Your task to perform on an android device: toggle pop-ups in chrome Image 0: 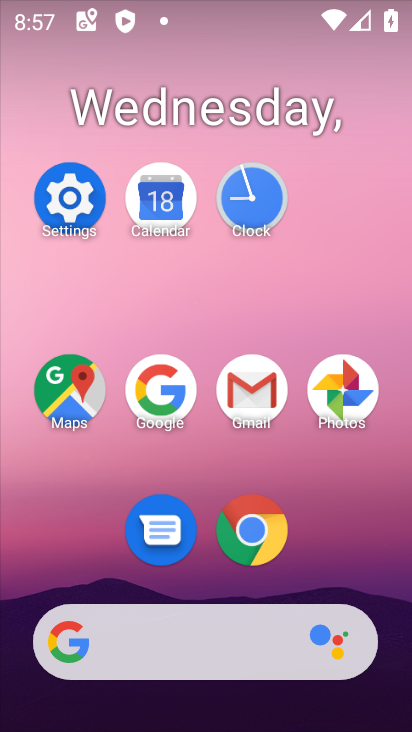
Step 0: click (284, 537)
Your task to perform on an android device: toggle pop-ups in chrome Image 1: 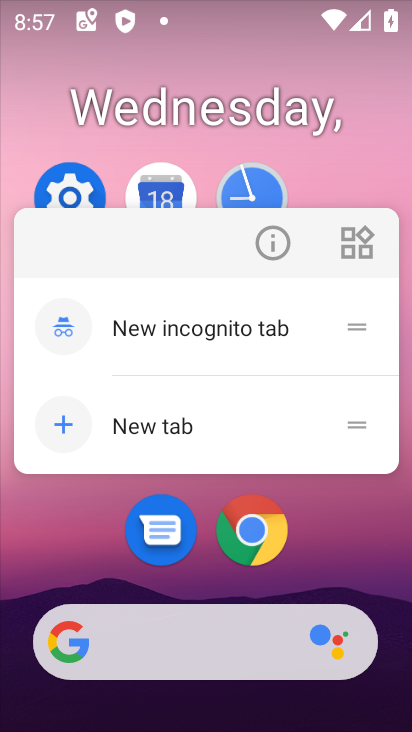
Step 1: click (251, 512)
Your task to perform on an android device: toggle pop-ups in chrome Image 2: 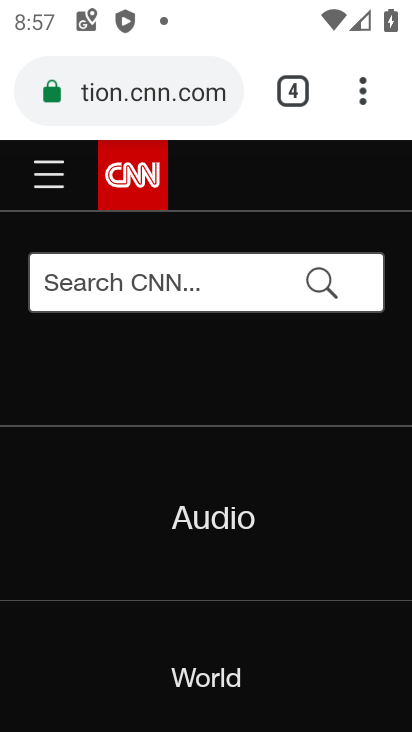
Step 2: click (369, 108)
Your task to perform on an android device: toggle pop-ups in chrome Image 3: 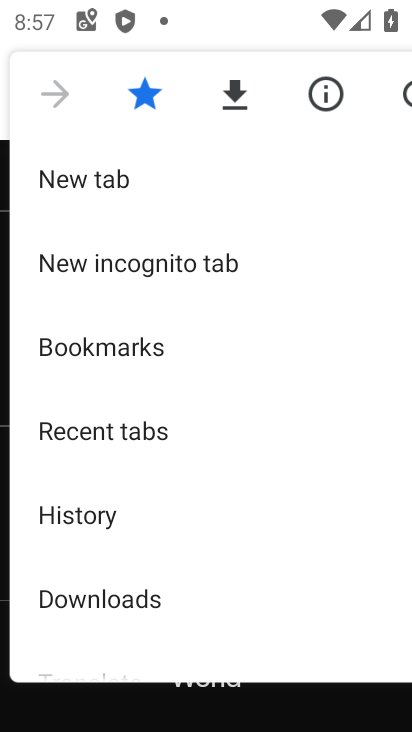
Step 3: drag from (229, 487) to (243, 130)
Your task to perform on an android device: toggle pop-ups in chrome Image 4: 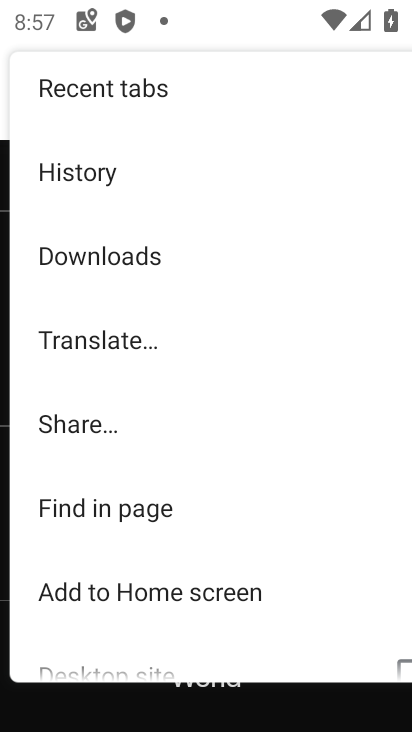
Step 4: drag from (159, 530) to (205, 143)
Your task to perform on an android device: toggle pop-ups in chrome Image 5: 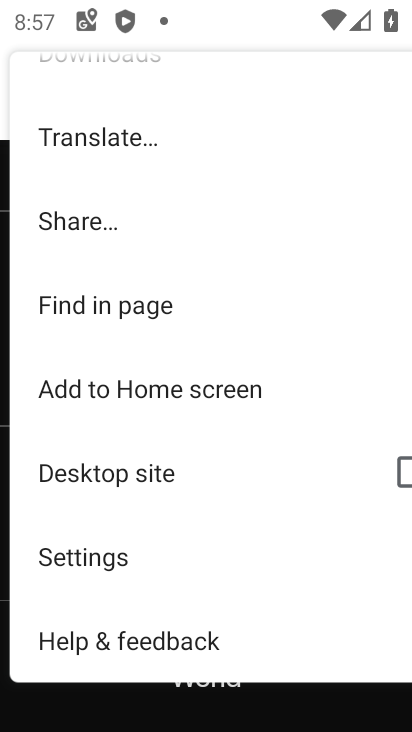
Step 5: click (139, 569)
Your task to perform on an android device: toggle pop-ups in chrome Image 6: 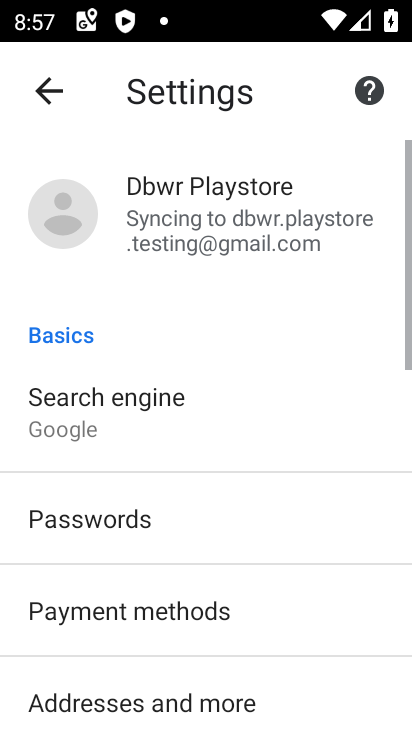
Step 6: drag from (133, 552) to (191, 133)
Your task to perform on an android device: toggle pop-ups in chrome Image 7: 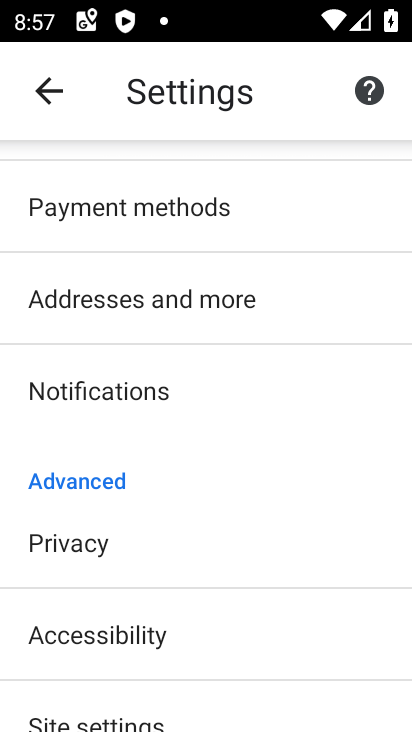
Step 7: drag from (183, 599) to (219, 198)
Your task to perform on an android device: toggle pop-ups in chrome Image 8: 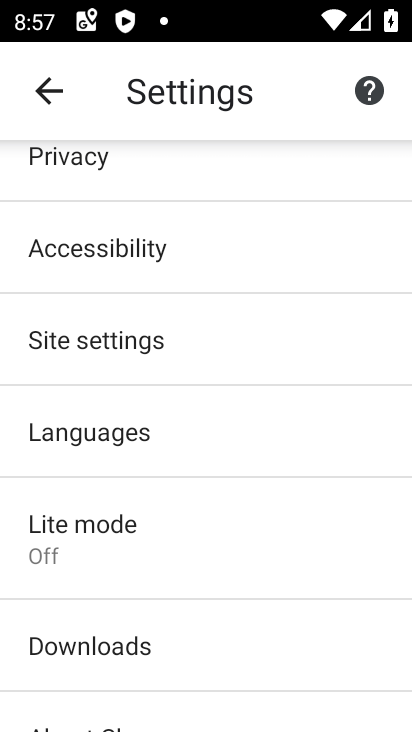
Step 8: drag from (180, 530) to (211, 257)
Your task to perform on an android device: toggle pop-ups in chrome Image 9: 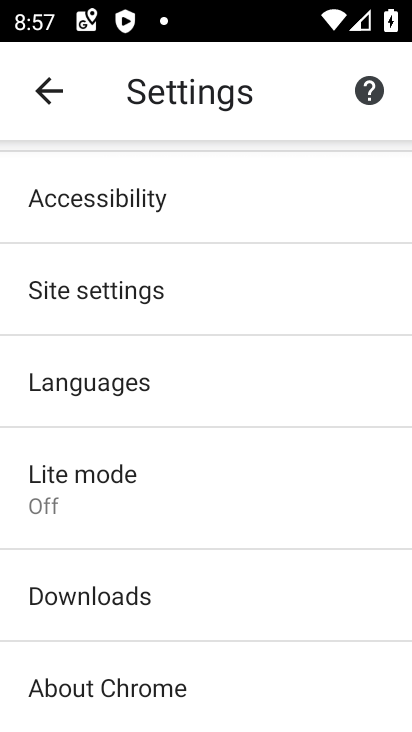
Step 9: click (216, 303)
Your task to perform on an android device: toggle pop-ups in chrome Image 10: 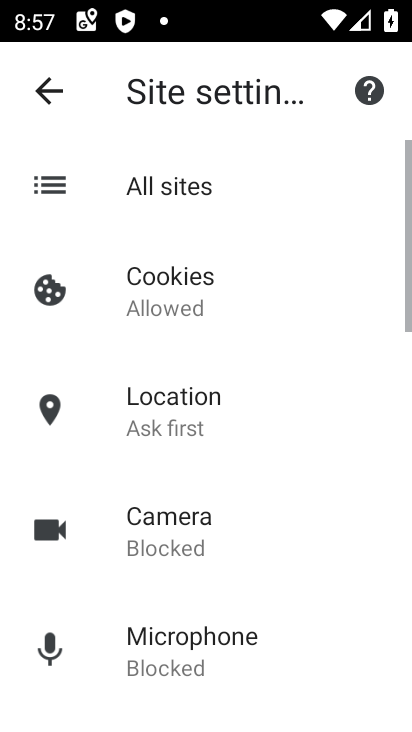
Step 10: drag from (245, 536) to (253, 212)
Your task to perform on an android device: toggle pop-ups in chrome Image 11: 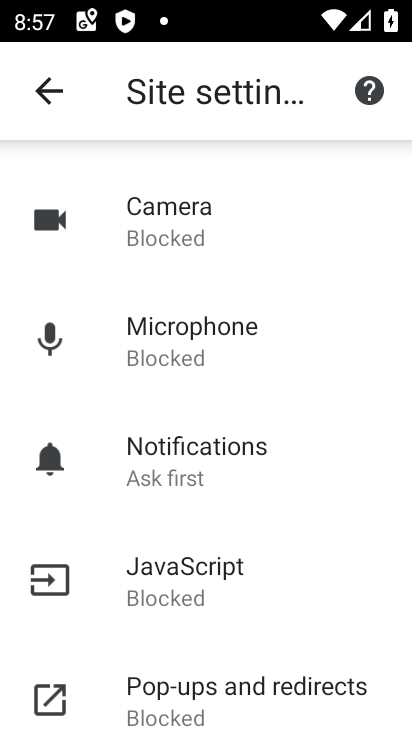
Step 11: drag from (289, 550) to (267, 214)
Your task to perform on an android device: toggle pop-ups in chrome Image 12: 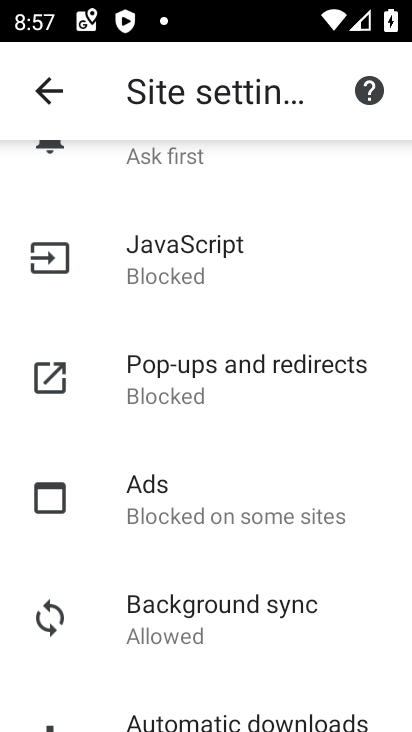
Step 12: click (286, 394)
Your task to perform on an android device: toggle pop-ups in chrome Image 13: 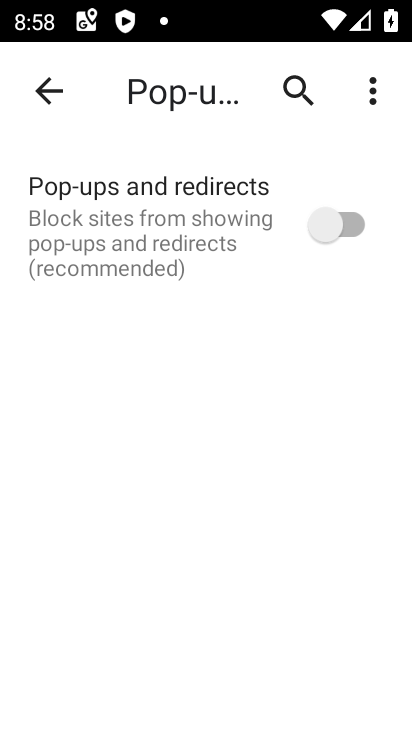
Step 13: click (343, 206)
Your task to perform on an android device: toggle pop-ups in chrome Image 14: 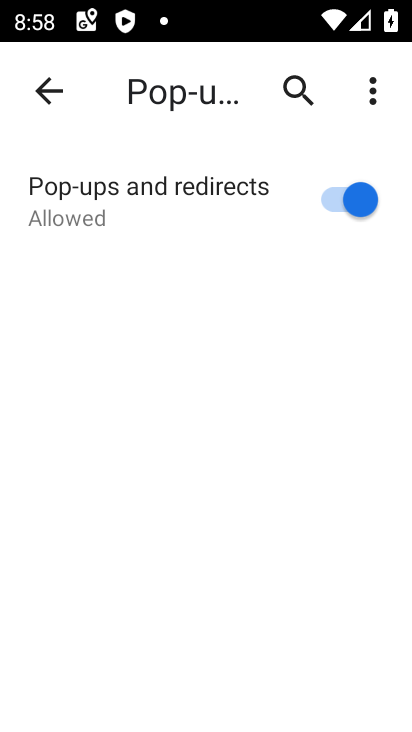
Step 14: task complete